Your task to perform on an android device: Empty the shopping cart on walmart. Image 0: 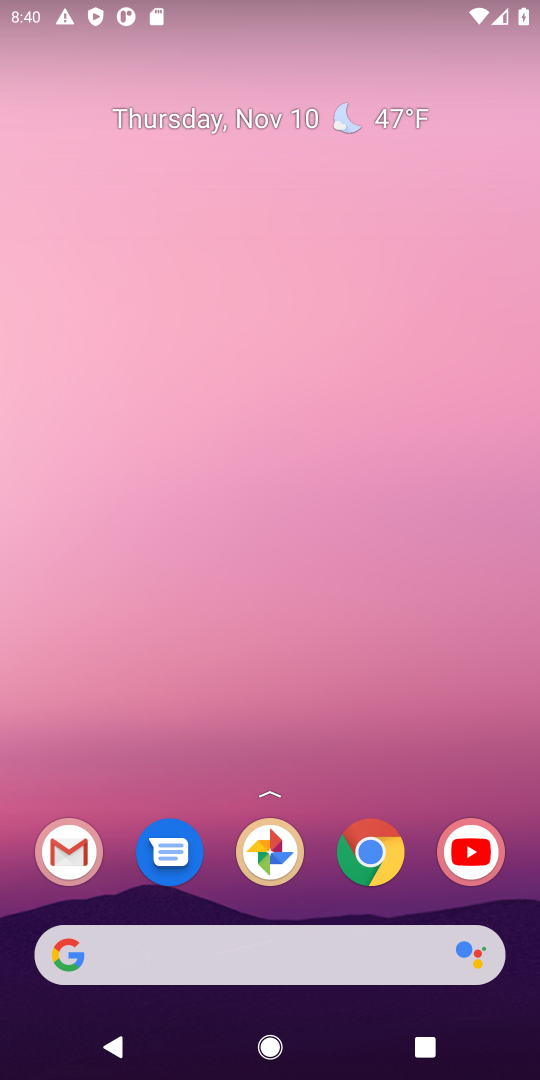
Step 0: click (379, 840)
Your task to perform on an android device: Empty the shopping cart on walmart. Image 1: 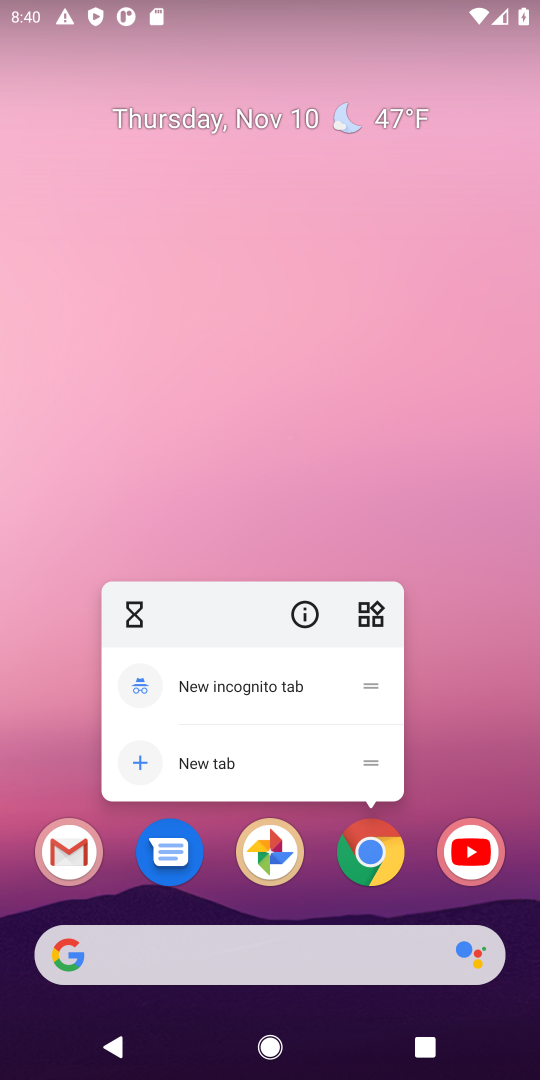
Step 1: click (370, 849)
Your task to perform on an android device: Empty the shopping cart on walmart. Image 2: 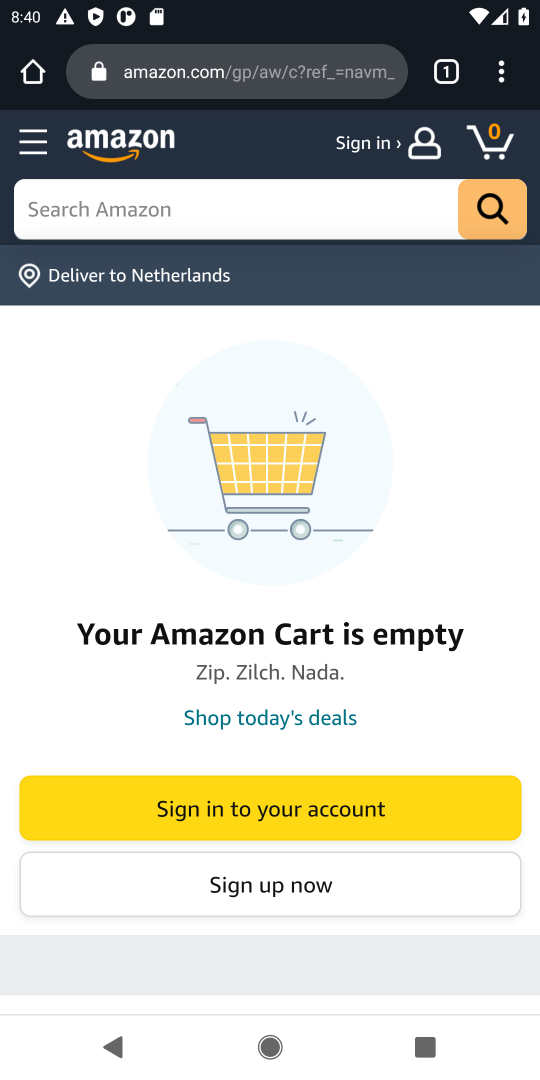
Step 2: click (271, 76)
Your task to perform on an android device: Empty the shopping cart on walmart. Image 3: 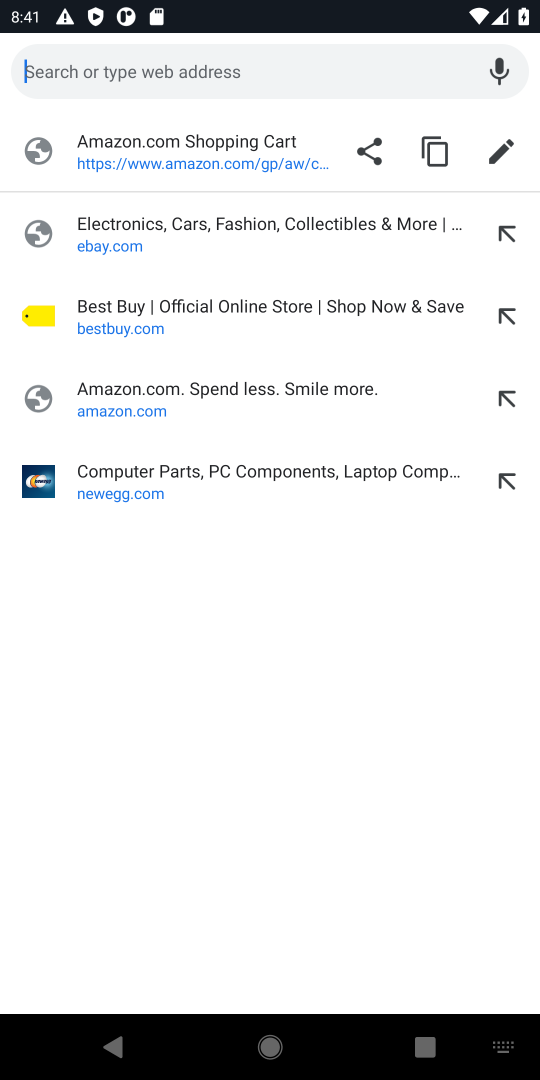
Step 3: type " walmart"
Your task to perform on an android device: Empty the shopping cart on walmart. Image 4: 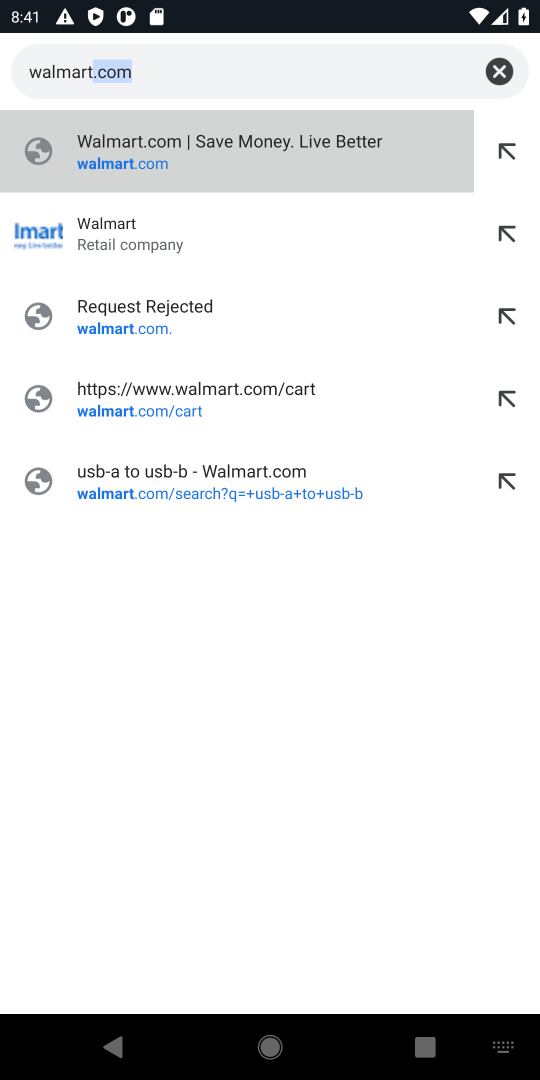
Step 4: press enter
Your task to perform on an android device: Empty the shopping cart on walmart. Image 5: 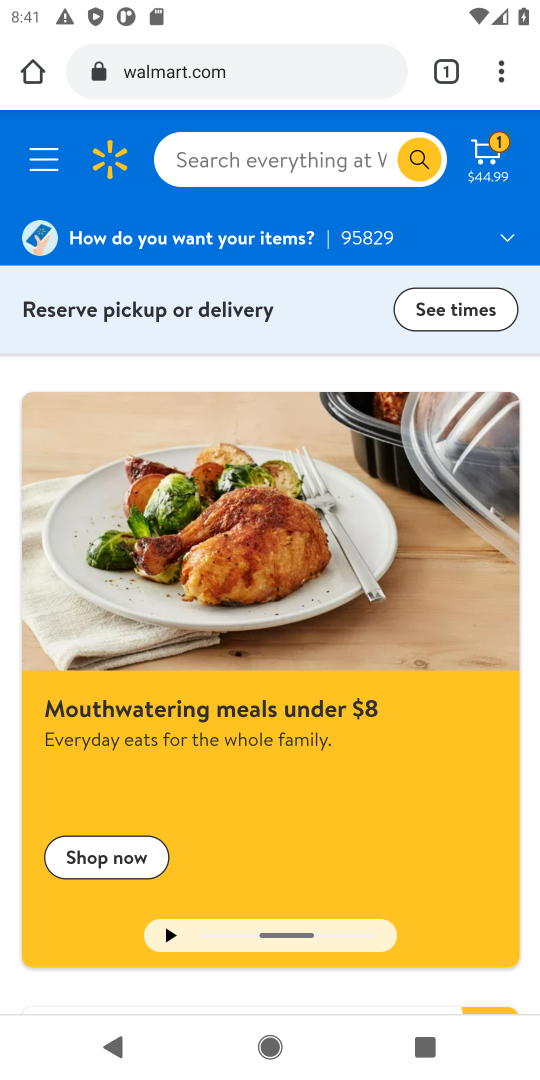
Step 5: click (479, 149)
Your task to perform on an android device: Empty the shopping cart on walmart. Image 6: 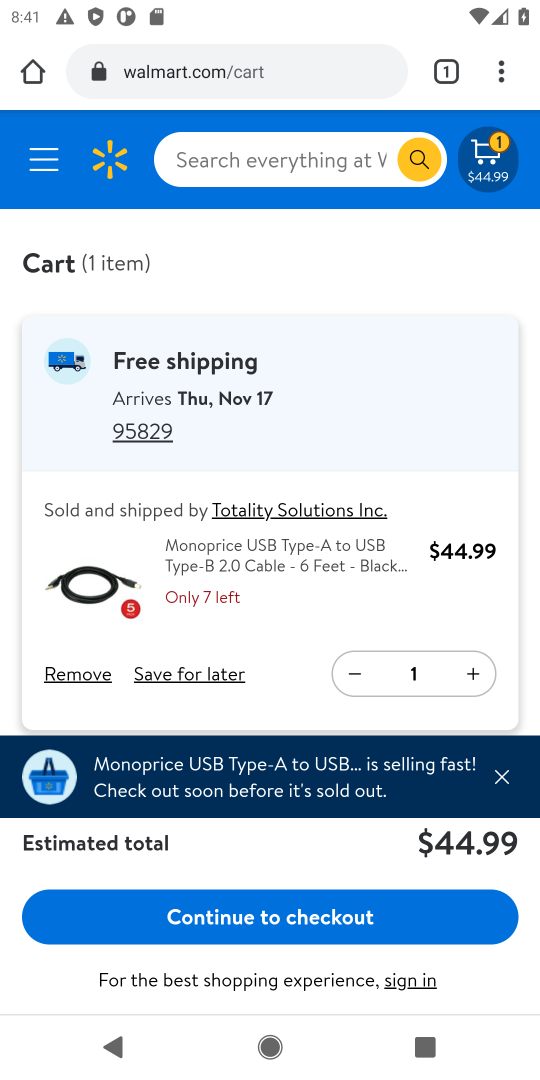
Step 6: drag from (282, 617) to (329, 447)
Your task to perform on an android device: Empty the shopping cart on walmart. Image 7: 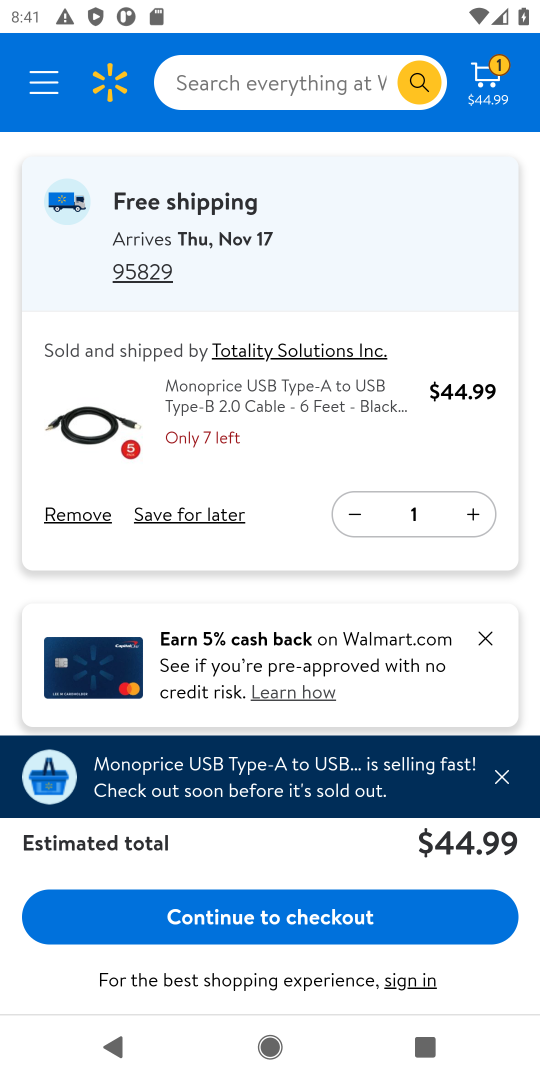
Step 7: click (84, 506)
Your task to perform on an android device: Empty the shopping cart on walmart. Image 8: 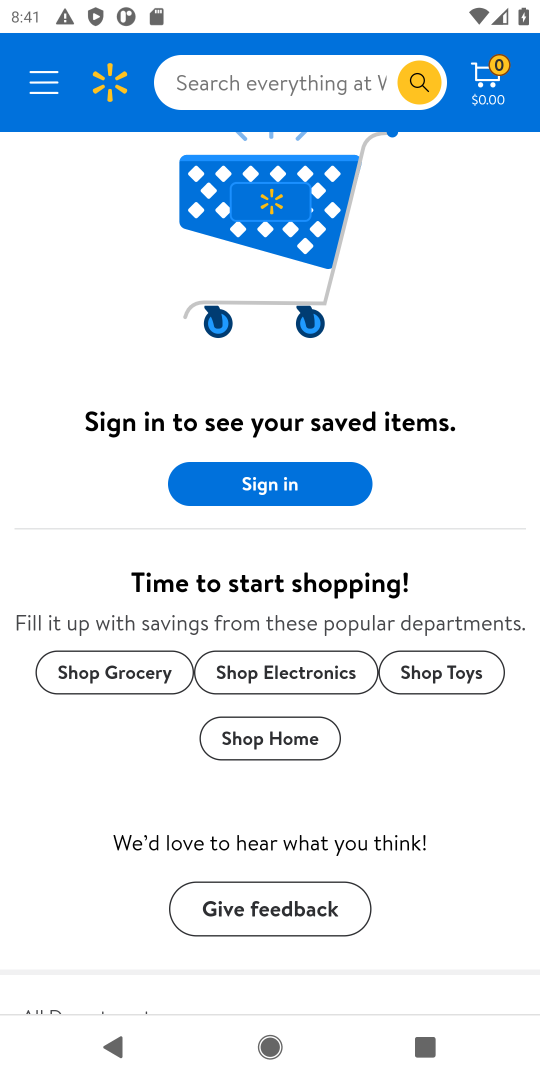
Step 8: task complete